Your task to perform on an android device: When is my next meeting? Image 0: 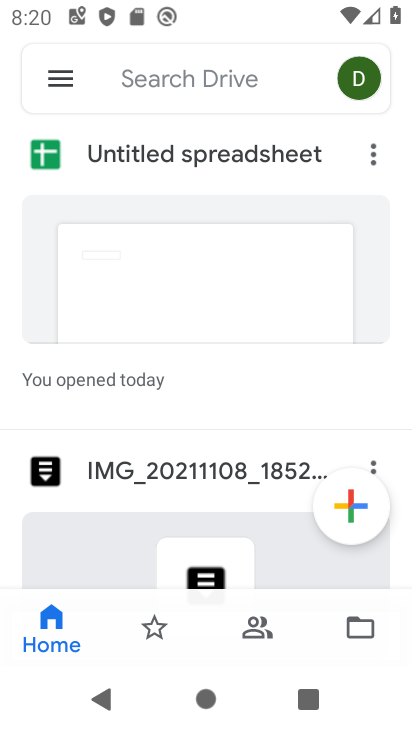
Step 0: press home button
Your task to perform on an android device: When is my next meeting? Image 1: 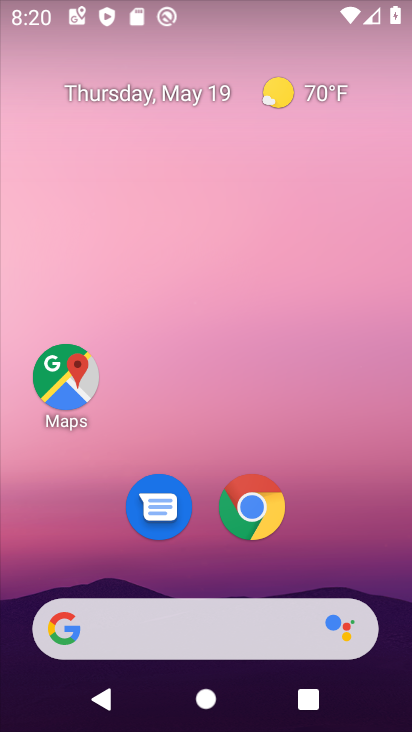
Step 1: drag from (194, 571) to (223, 254)
Your task to perform on an android device: When is my next meeting? Image 2: 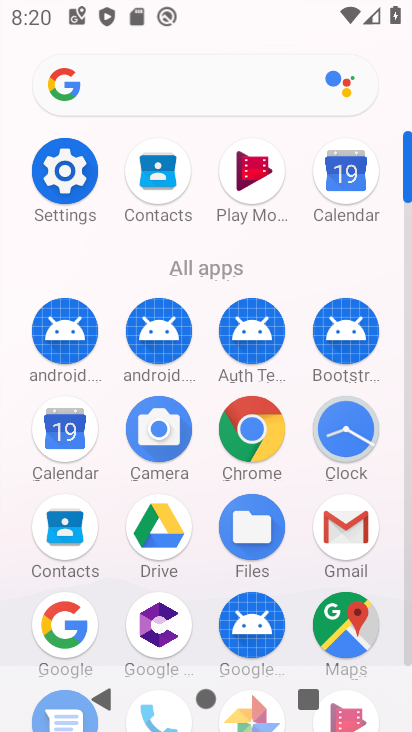
Step 2: click (73, 448)
Your task to perform on an android device: When is my next meeting? Image 3: 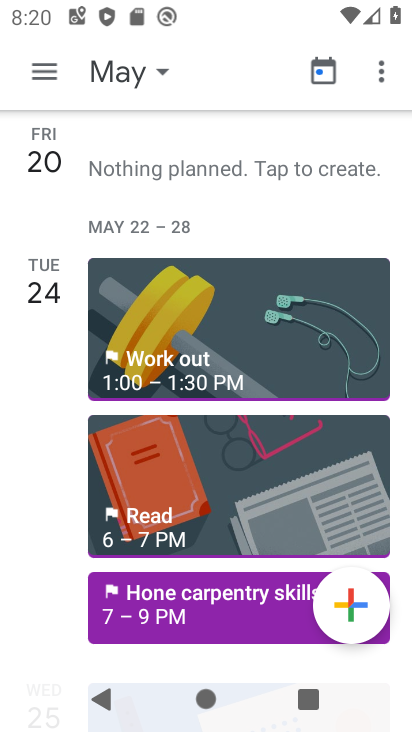
Step 3: task complete